Your task to perform on an android device: open a bookmark in the chrome app Image 0: 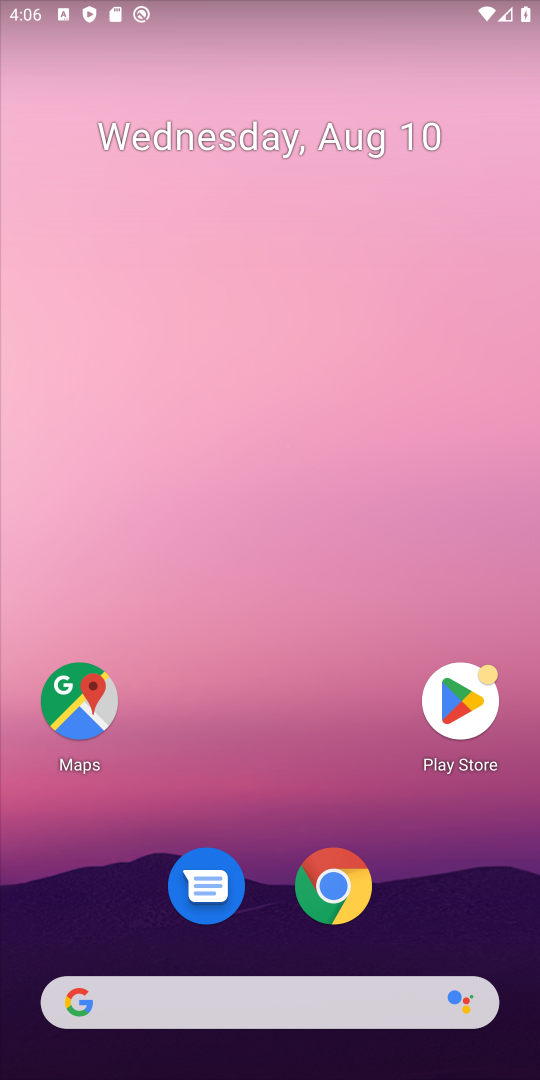
Step 0: click (330, 866)
Your task to perform on an android device: open a bookmark in the chrome app Image 1: 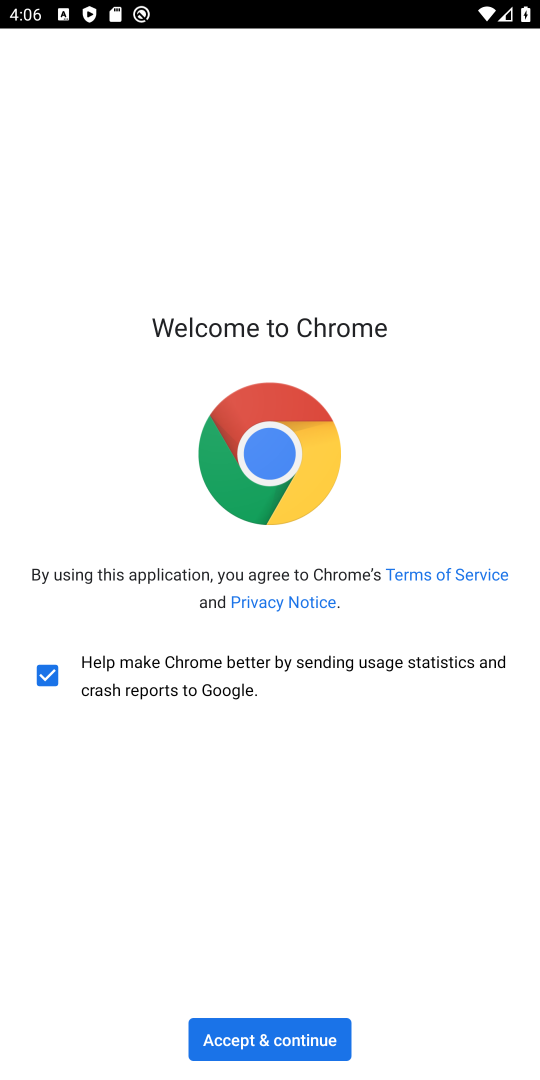
Step 1: click (266, 1032)
Your task to perform on an android device: open a bookmark in the chrome app Image 2: 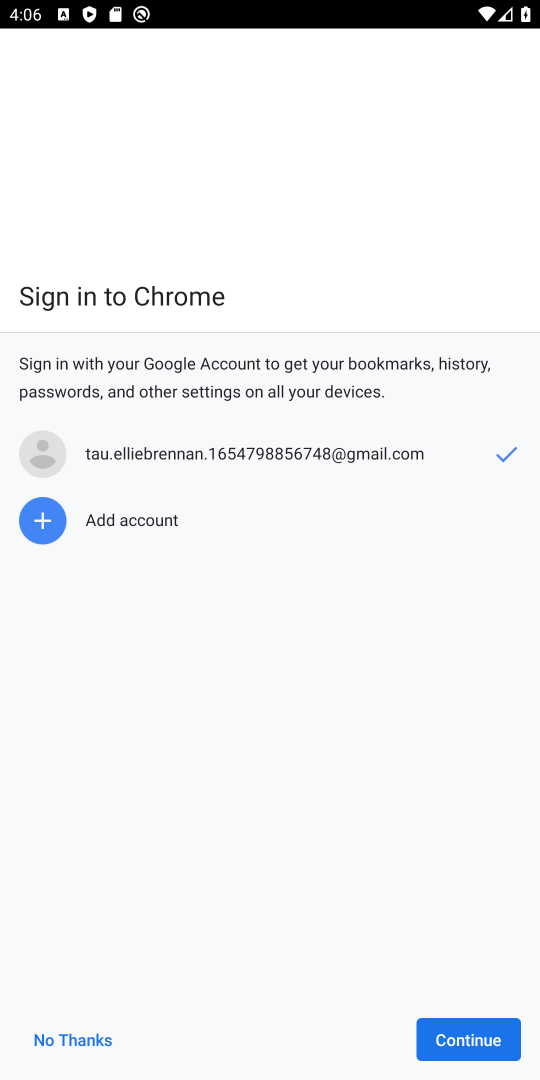
Step 2: click (472, 1069)
Your task to perform on an android device: open a bookmark in the chrome app Image 3: 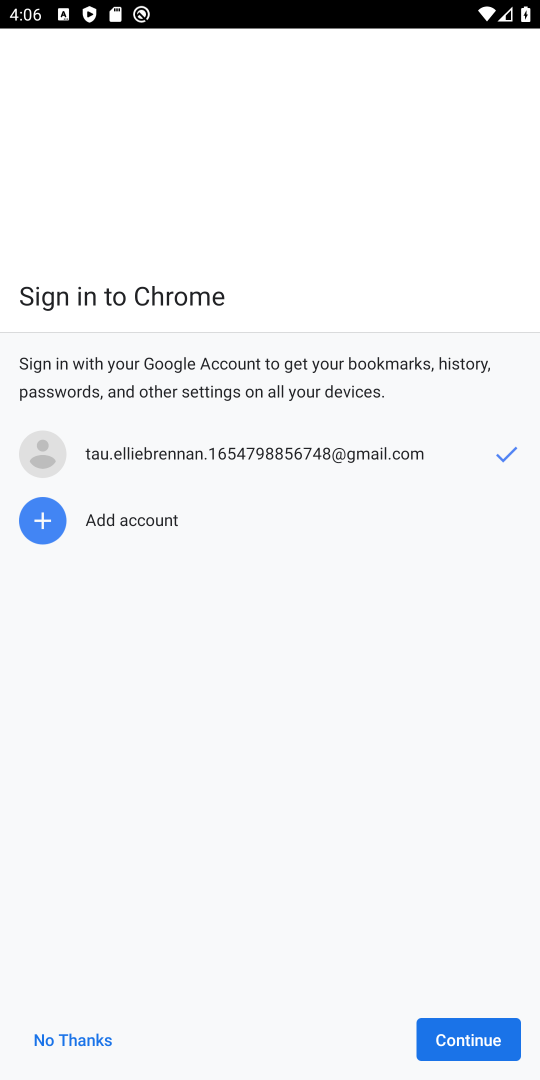
Step 3: click (463, 1046)
Your task to perform on an android device: open a bookmark in the chrome app Image 4: 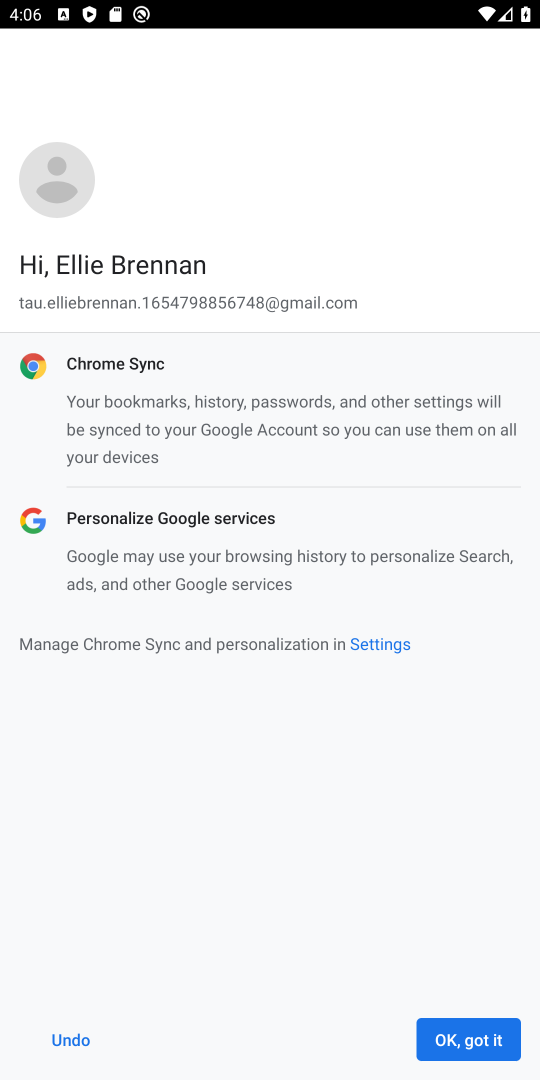
Step 4: click (463, 1046)
Your task to perform on an android device: open a bookmark in the chrome app Image 5: 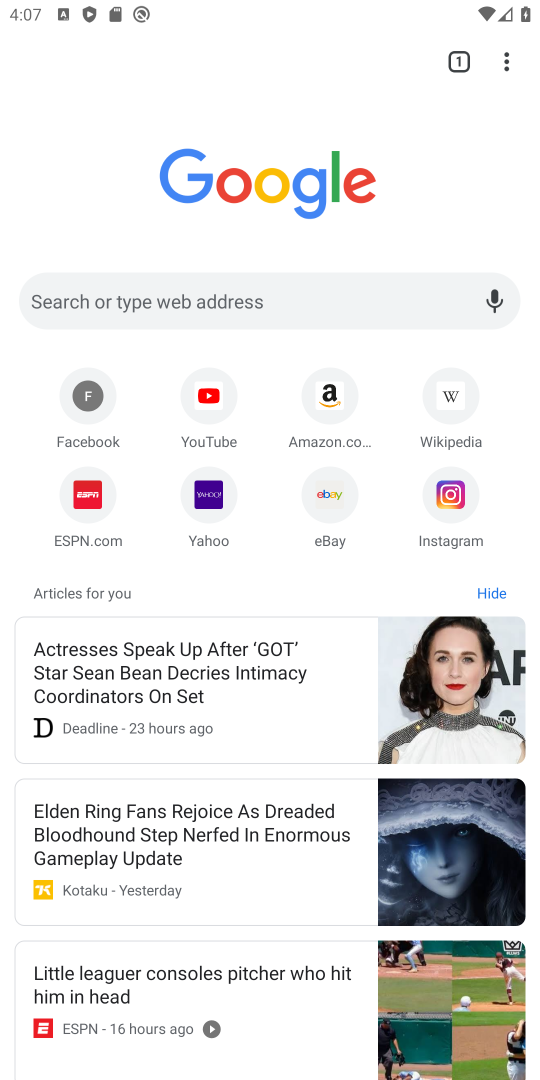
Step 5: click (510, 57)
Your task to perform on an android device: open a bookmark in the chrome app Image 6: 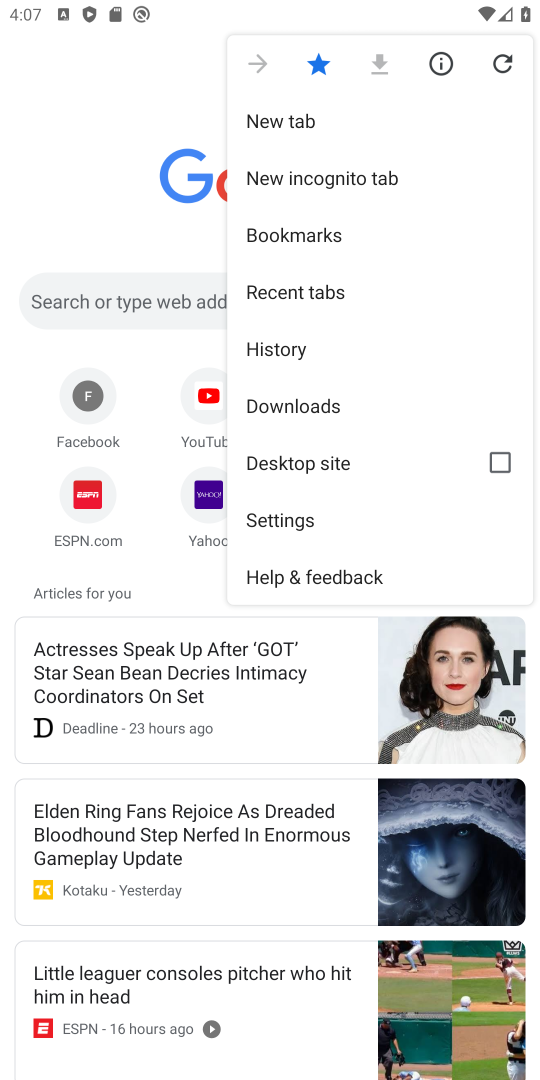
Step 6: click (302, 232)
Your task to perform on an android device: open a bookmark in the chrome app Image 7: 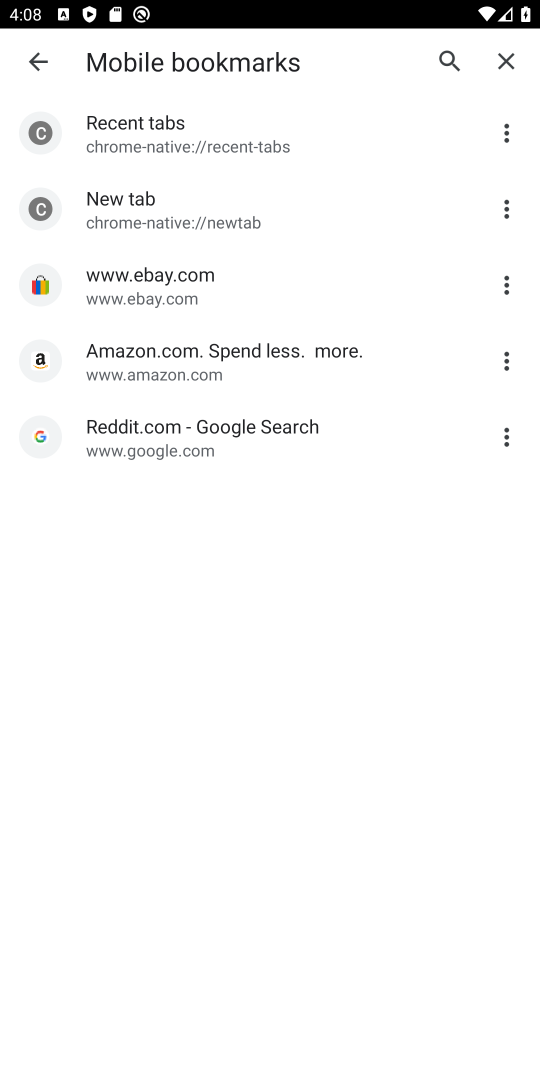
Step 7: task complete